Your task to perform on an android device: Show the shopping cart on ebay.com. Add "jbl flip 4" to the cart on ebay.com, then select checkout. Image 0: 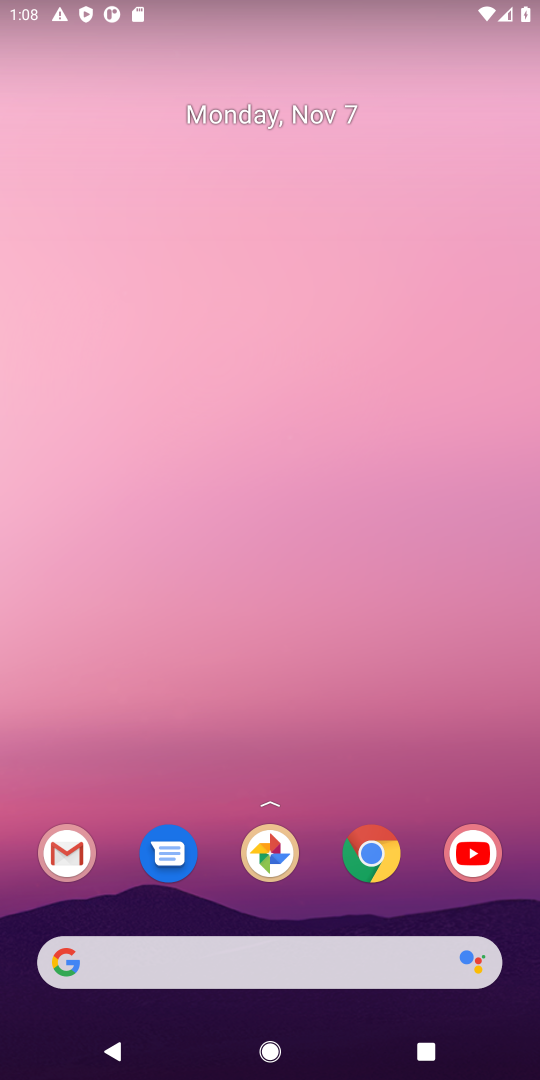
Step 0: drag from (367, 304) to (371, 12)
Your task to perform on an android device: Show the shopping cart on ebay.com. Add "jbl flip 4" to the cart on ebay.com, then select checkout. Image 1: 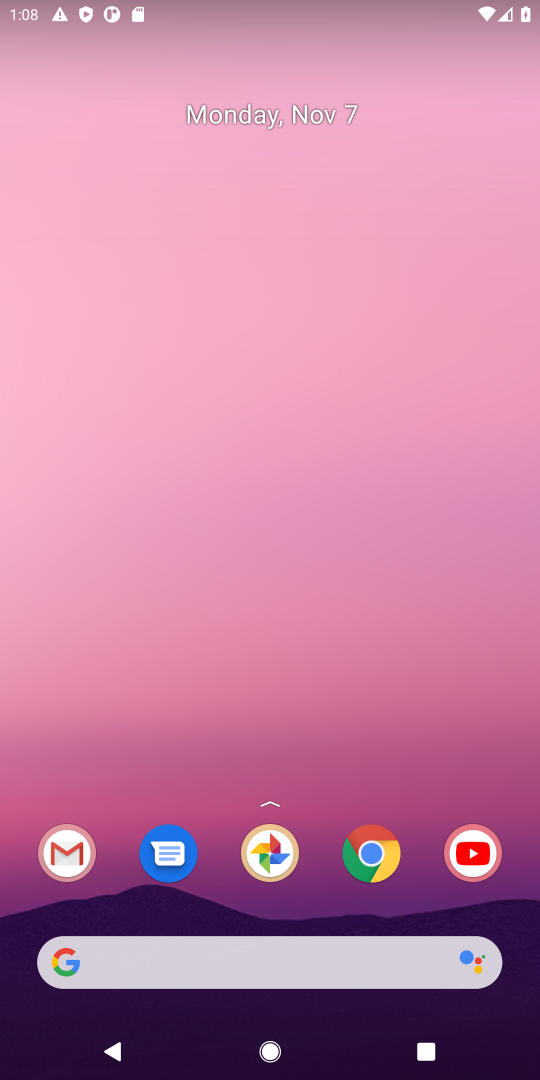
Step 1: drag from (330, 885) to (310, 153)
Your task to perform on an android device: Show the shopping cart on ebay.com. Add "jbl flip 4" to the cart on ebay.com, then select checkout. Image 2: 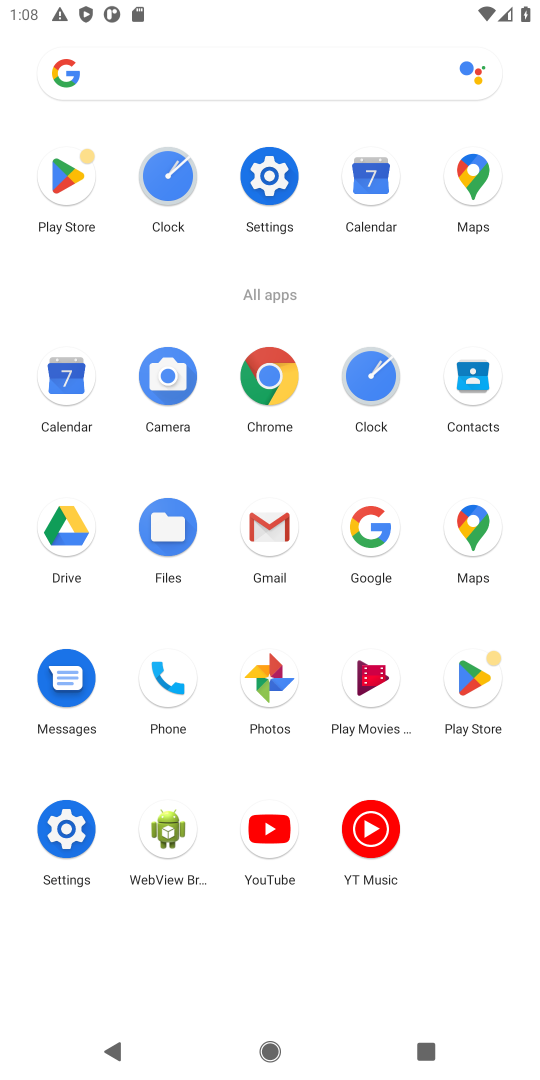
Step 2: click (262, 381)
Your task to perform on an android device: Show the shopping cart on ebay.com. Add "jbl flip 4" to the cart on ebay.com, then select checkout. Image 3: 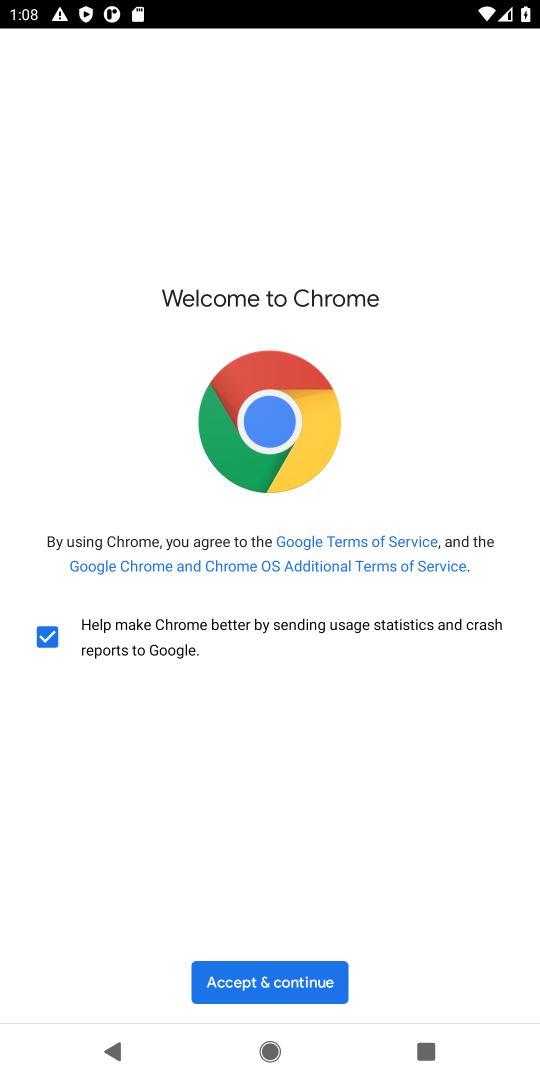
Step 3: click (301, 971)
Your task to perform on an android device: Show the shopping cart on ebay.com. Add "jbl flip 4" to the cart on ebay.com, then select checkout. Image 4: 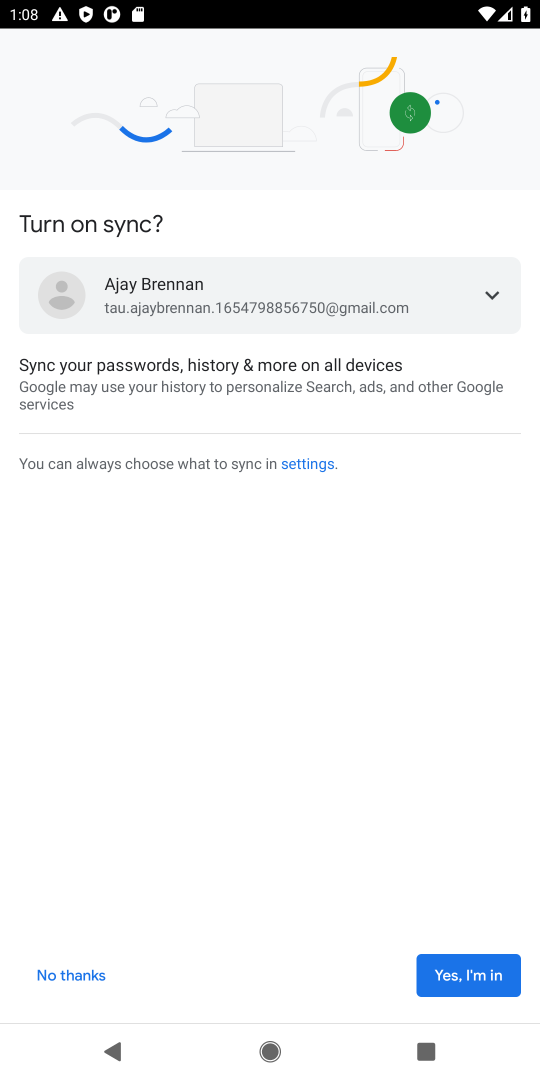
Step 4: click (459, 982)
Your task to perform on an android device: Show the shopping cart on ebay.com. Add "jbl flip 4" to the cart on ebay.com, then select checkout. Image 5: 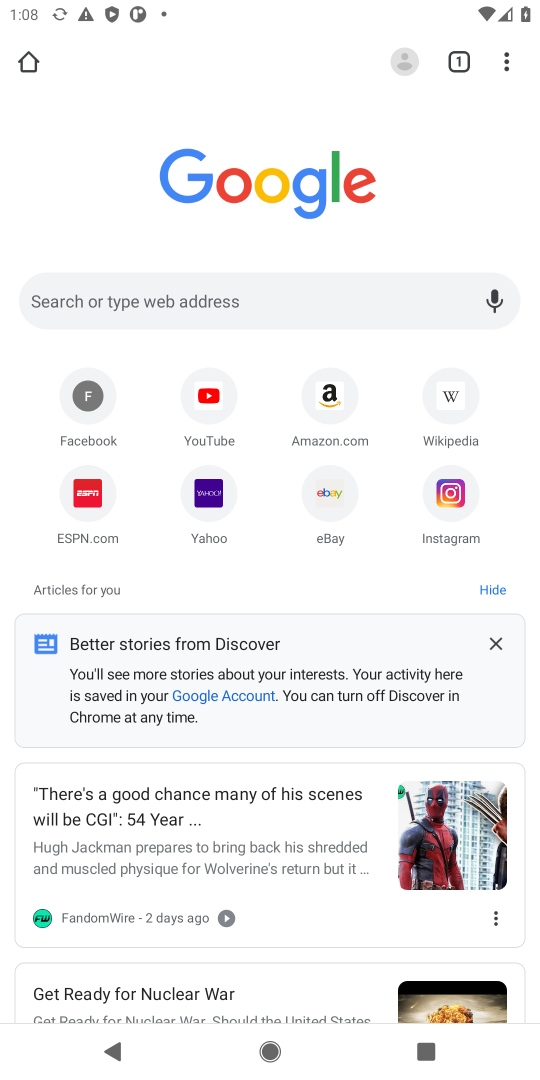
Step 5: click (326, 498)
Your task to perform on an android device: Show the shopping cart on ebay.com. Add "jbl flip 4" to the cart on ebay.com, then select checkout. Image 6: 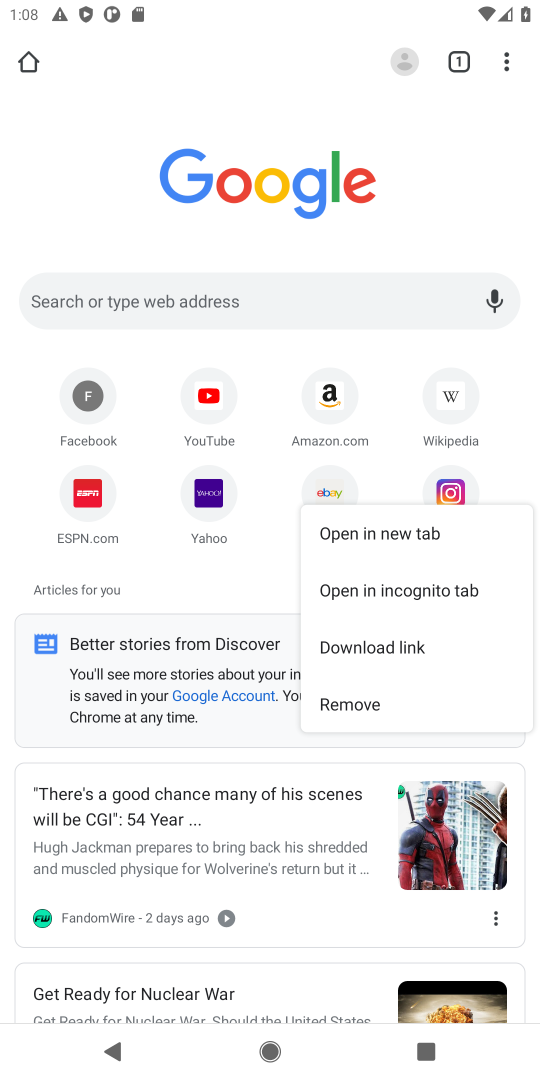
Step 6: click (259, 523)
Your task to perform on an android device: Show the shopping cart on ebay.com. Add "jbl flip 4" to the cart on ebay.com, then select checkout. Image 7: 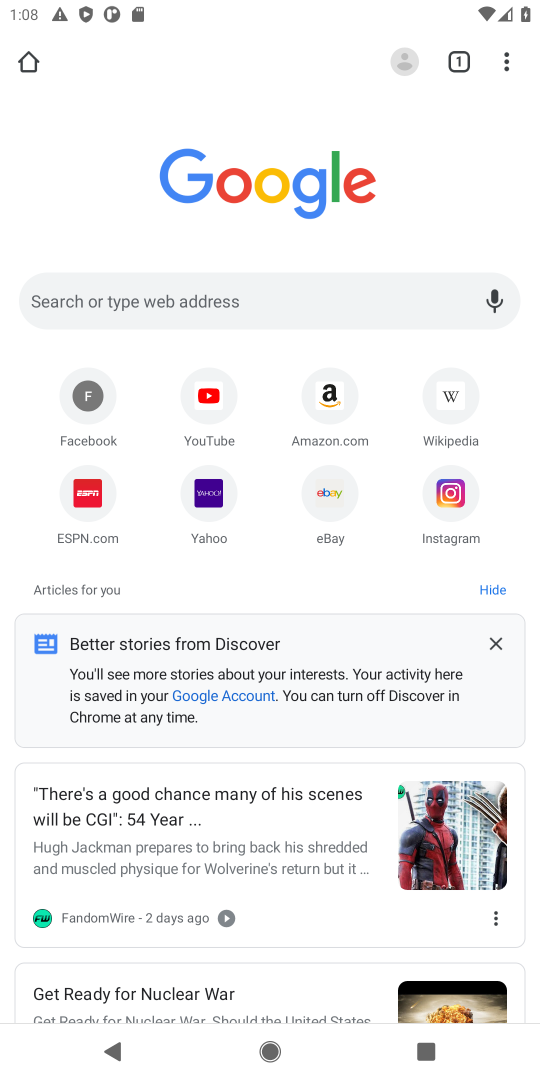
Step 7: click (327, 490)
Your task to perform on an android device: Show the shopping cart on ebay.com. Add "jbl flip 4" to the cart on ebay.com, then select checkout. Image 8: 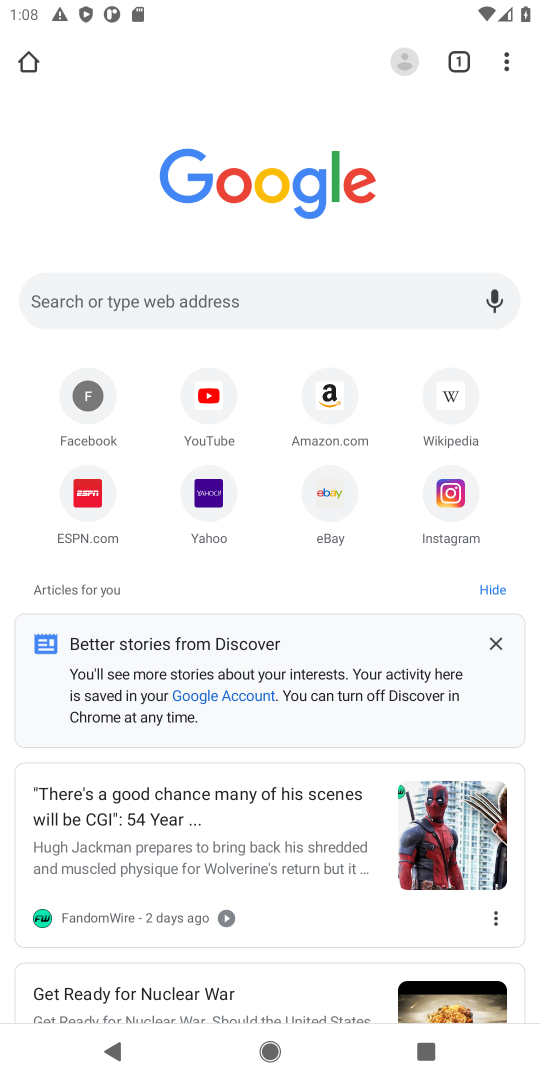
Step 8: click (333, 498)
Your task to perform on an android device: Show the shopping cart on ebay.com. Add "jbl flip 4" to the cart on ebay.com, then select checkout. Image 9: 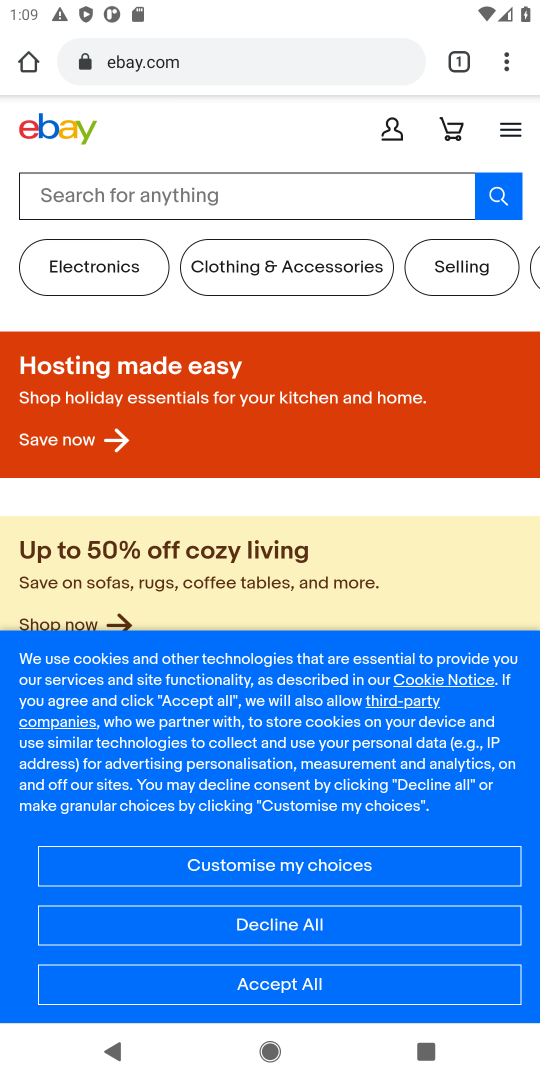
Step 9: click (230, 183)
Your task to perform on an android device: Show the shopping cart on ebay.com. Add "jbl flip 4" to the cart on ebay.com, then select checkout. Image 10: 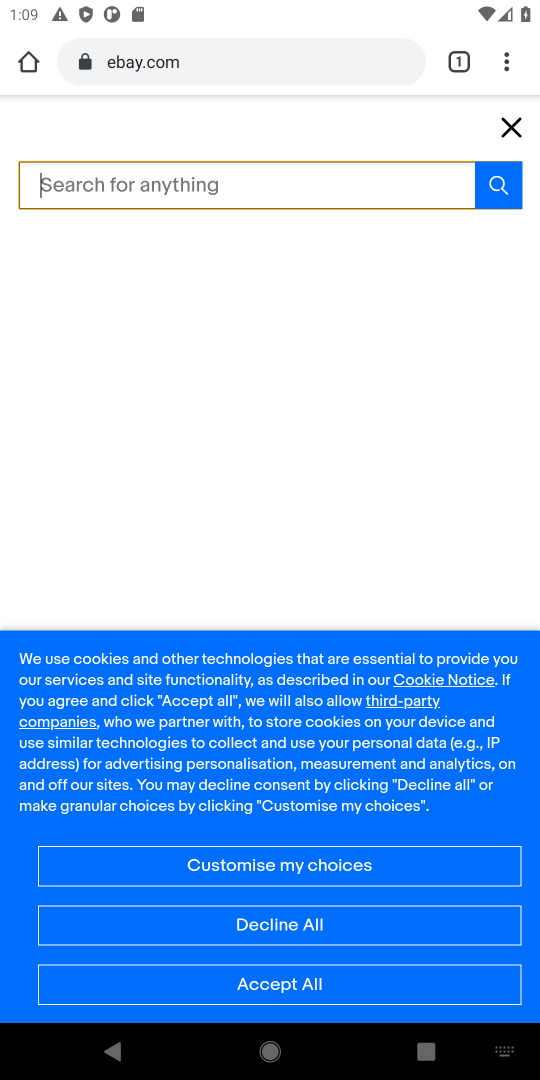
Step 10: type "jbl flip 4"
Your task to perform on an android device: Show the shopping cart on ebay.com. Add "jbl flip 4" to the cart on ebay.com, then select checkout. Image 11: 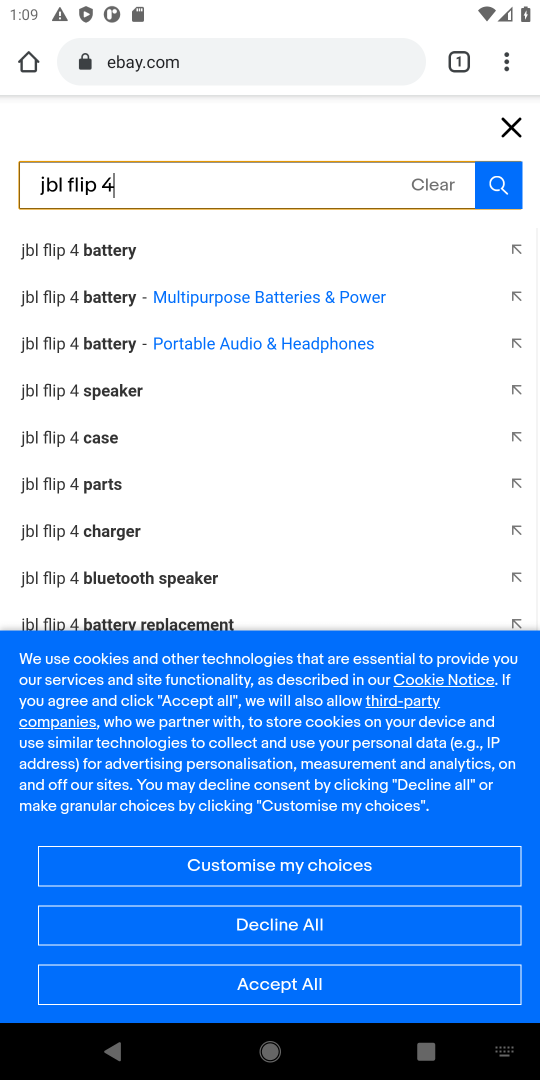
Step 11: press enter
Your task to perform on an android device: Show the shopping cart on ebay.com. Add "jbl flip 4" to the cart on ebay.com, then select checkout. Image 12: 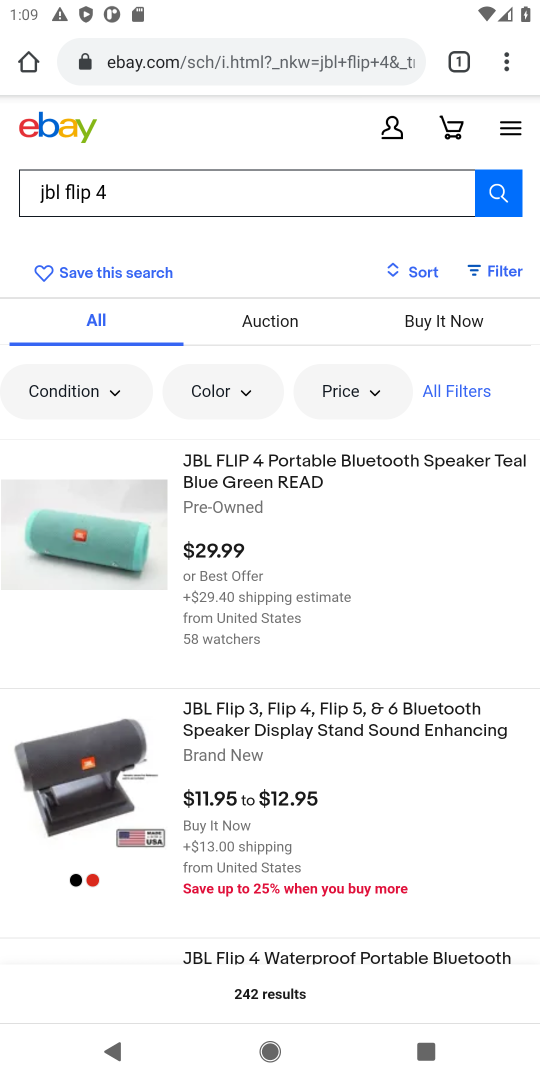
Step 12: click (292, 452)
Your task to perform on an android device: Show the shopping cart on ebay.com. Add "jbl flip 4" to the cart on ebay.com, then select checkout. Image 13: 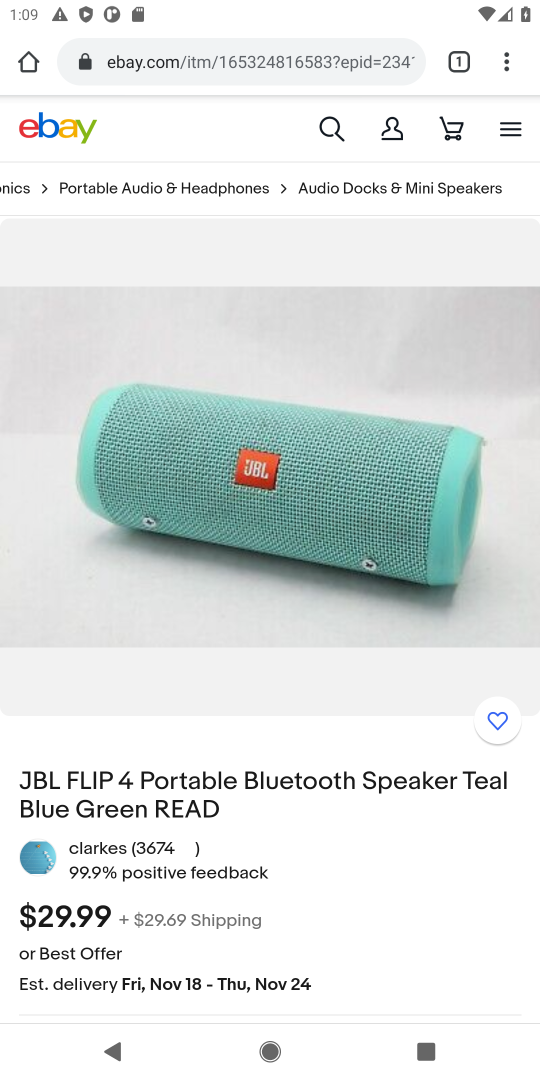
Step 13: drag from (258, 781) to (285, 465)
Your task to perform on an android device: Show the shopping cart on ebay.com. Add "jbl flip 4" to the cart on ebay.com, then select checkout. Image 14: 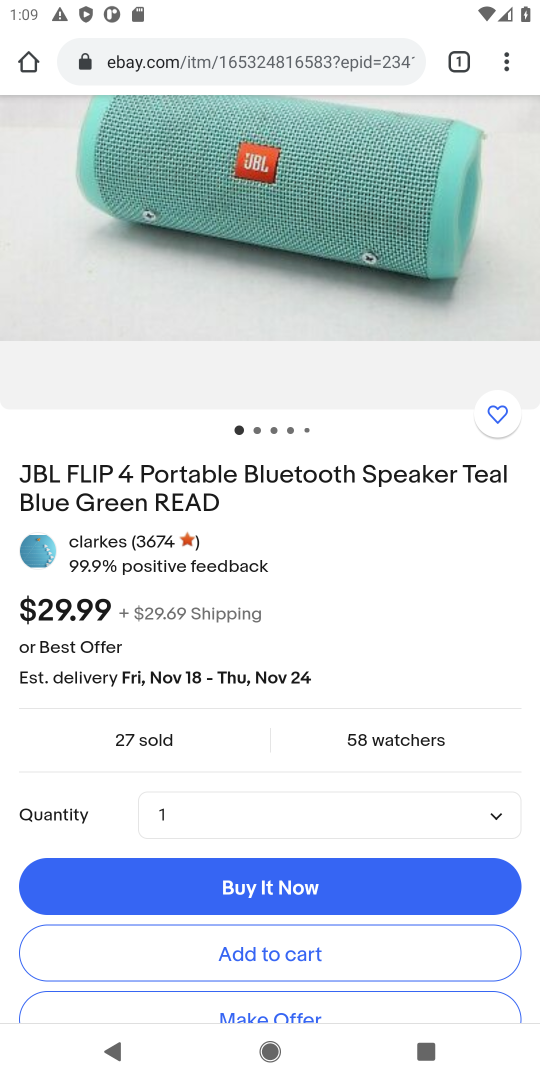
Step 14: click (307, 966)
Your task to perform on an android device: Show the shopping cart on ebay.com. Add "jbl flip 4" to the cart on ebay.com, then select checkout. Image 15: 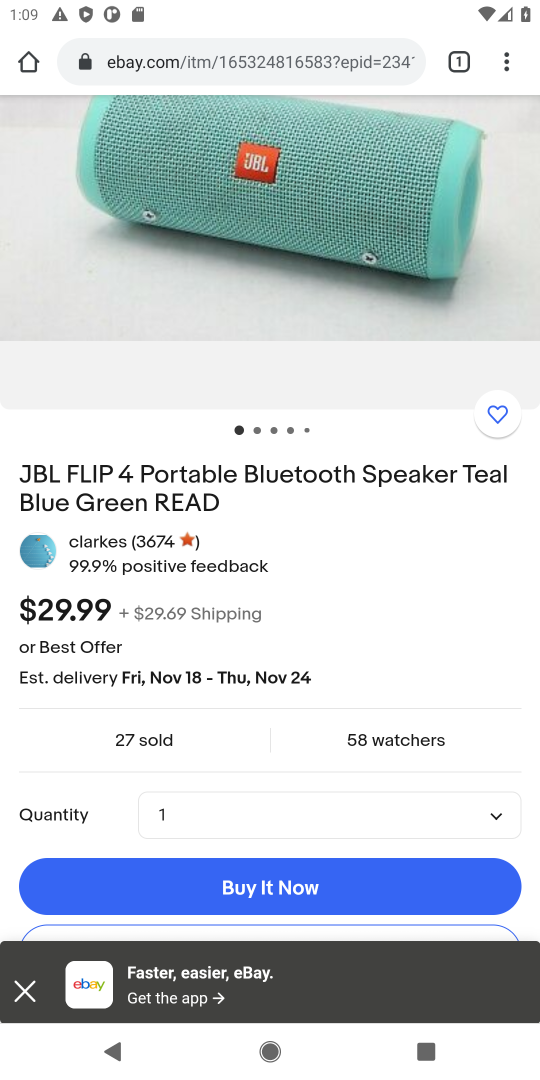
Step 15: drag from (337, 477) to (326, 248)
Your task to perform on an android device: Show the shopping cart on ebay.com. Add "jbl flip 4" to the cart on ebay.com, then select checkout. Image 16: 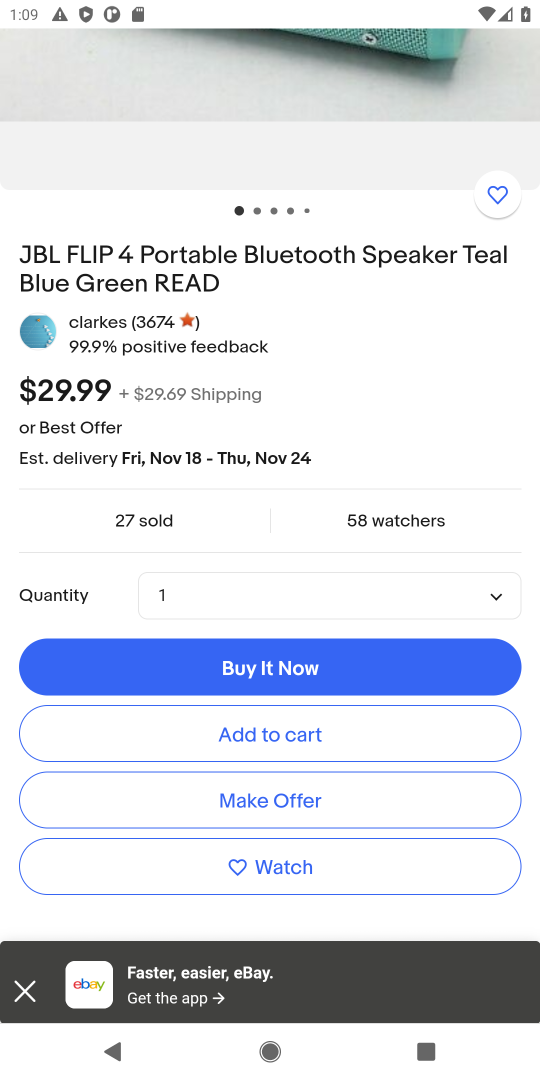
Step 16: click (331, 725)
Your task to perform on an android device: Show the shopping cart on ebay.com. Add "jbl flip 4" to the cart on ebay.com, then select checkout. Image 17: 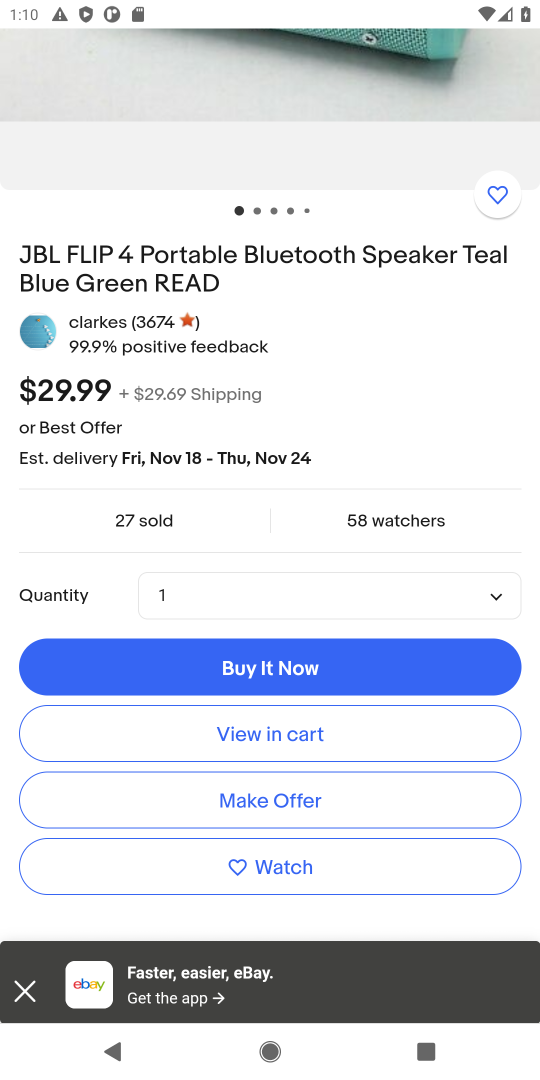
Step 17: click (325, 727)
Your task to perform on an android device: Show the shopping cart on ebay.com. Add "jbl flip 4" to the cart on ebay.com, then select checkout. Image 18: 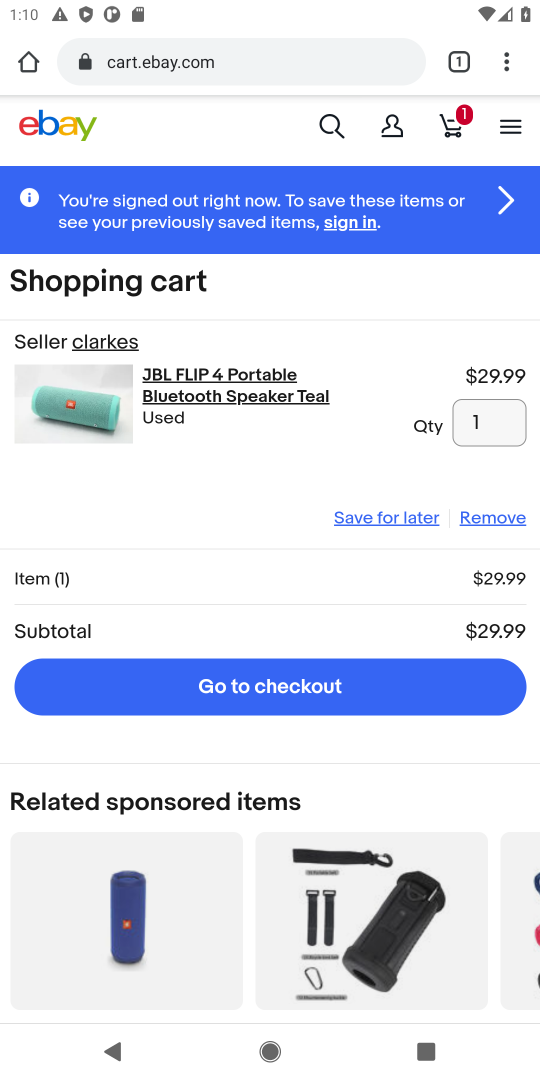
Step 18: click (316, 691)
Your task to perform on an android device: Show the shopping cart on ebay.com. Add "jbl flip 4" to the cart on ebay.com, then select checkout. Image 19: 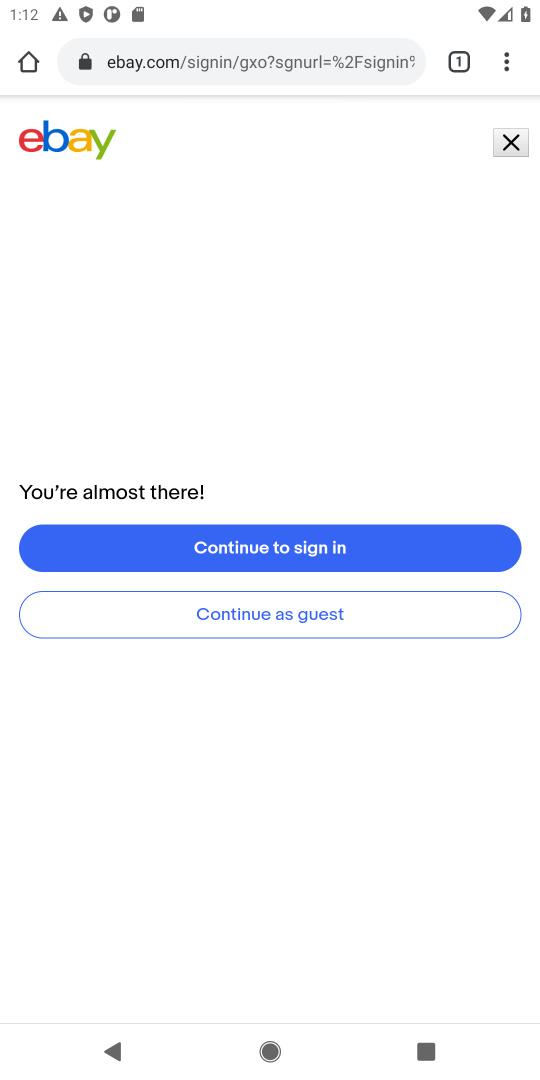
Step 19: task complete